Your task to perform on an android device: change the clock display to analog Image 0: 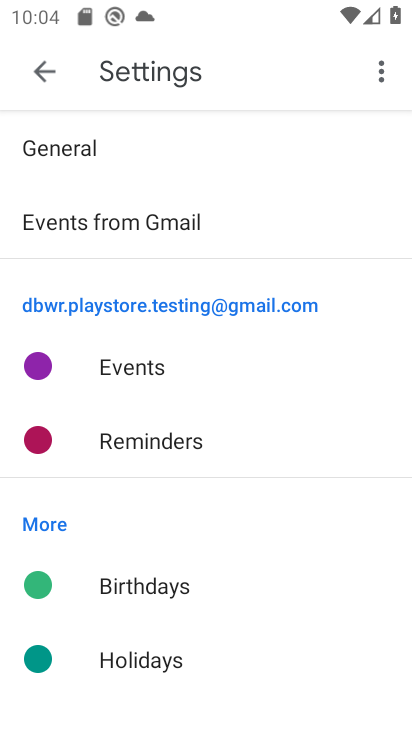
Step 0: press home button
Your task to perform on an android device: change the clock display to analog Image 1: 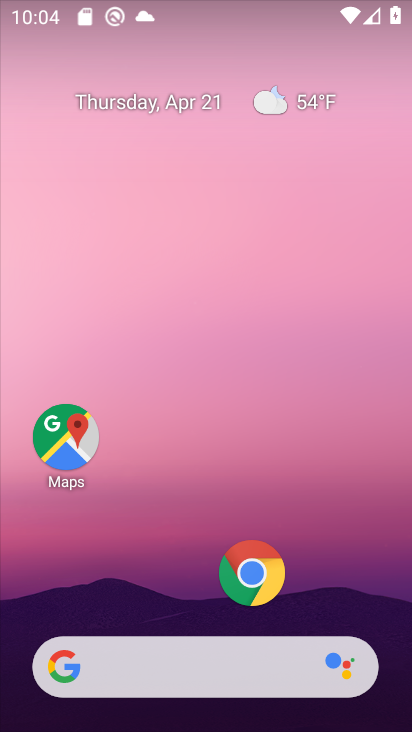
Step 1: drag from (192, 600) to (185, 59)
Your task to perform on an android device: change the clock display to analog Image 2: 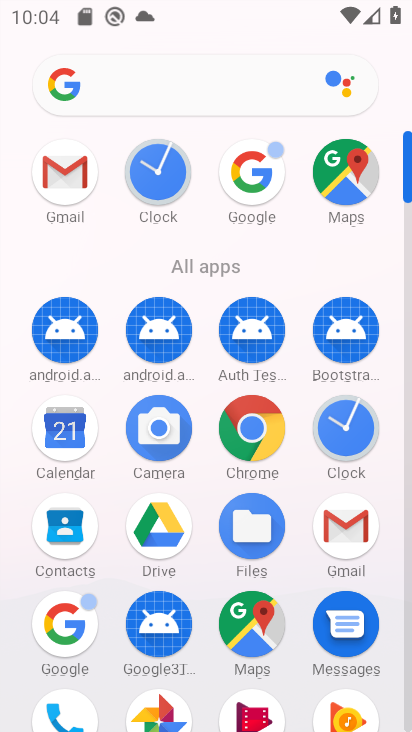
Step 2: click (166, 198)
Your task to perform on an android device: change the clock display to analog Image 3: 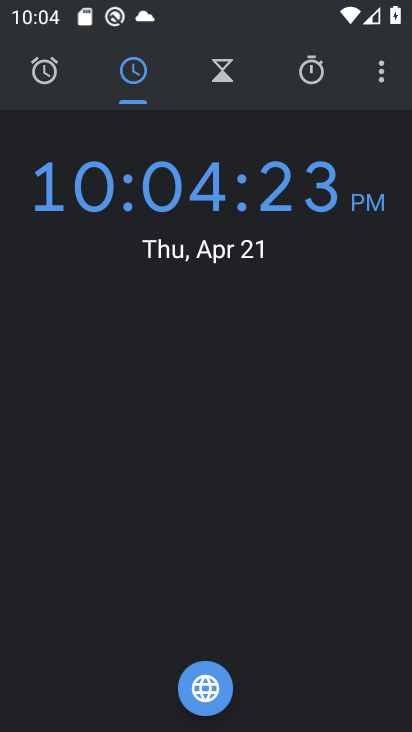
Step 3: click (375, 70)
Your task to perform on an android device: change the clock display to analog Image 4: 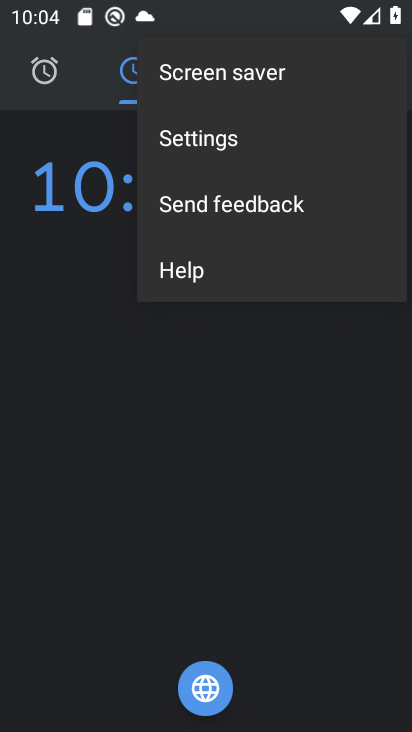
Step 4: click (208, 144)
Your task to perform on an android device: change the clock display to analog Image 5: 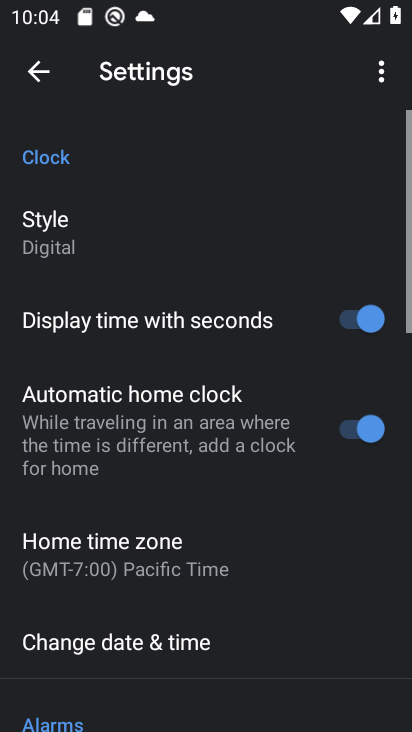
Step 5: click (95, 237)
Your task to perform on an android device: change the clock display to analog Image 6: 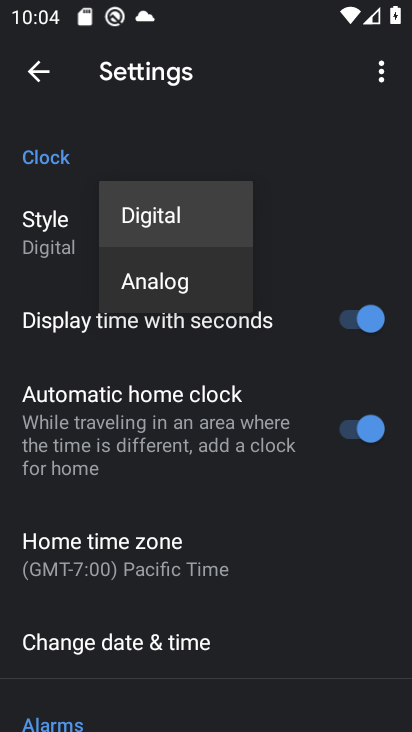
Step 6: click (129, 282)
Your task to perform on an android device: change the clock display to analog Image 7: 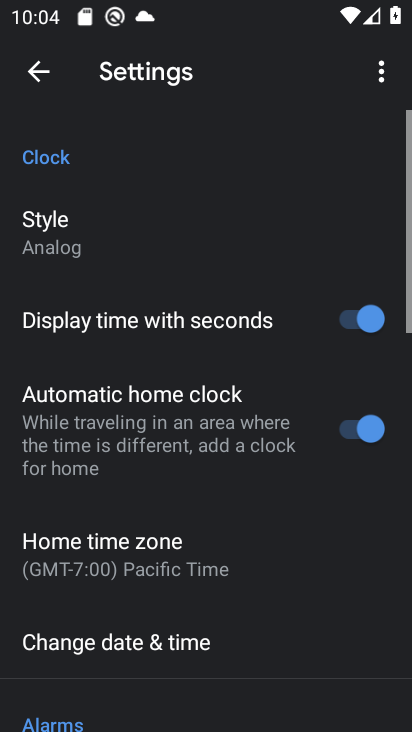
Step 7: task complete